Your task to perform on an android device: What is the recent news? Image 0: 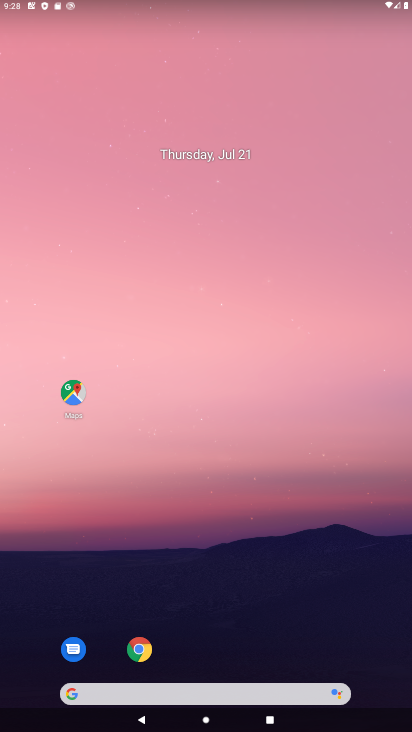
Step 0: drag from (224, 659) to (243, 34)
Your task to perform on an android device: What is the recent news? Image 1: 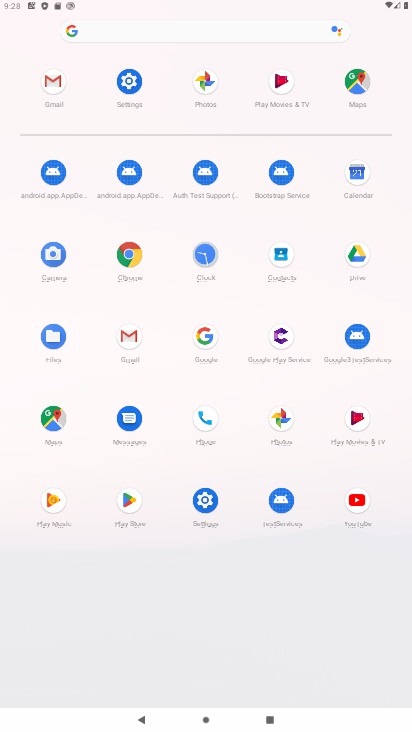
Step 1: click (207, 36)
Your task to perform on an android device: What is the recent news? Image 2: 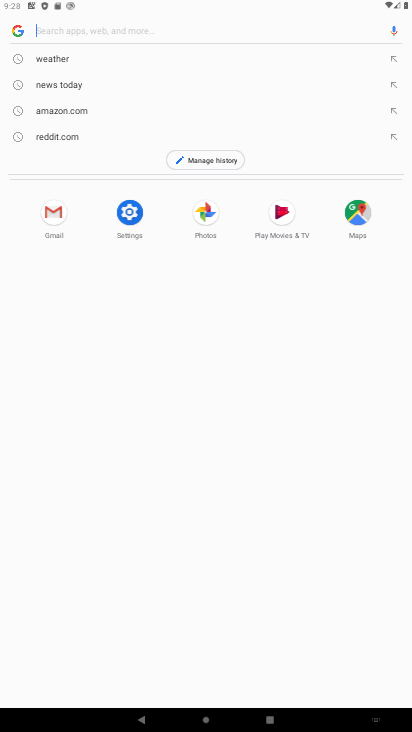
Step 2: type "recent news"
Your task to perform on an android device: What is the recent news? Image 3: 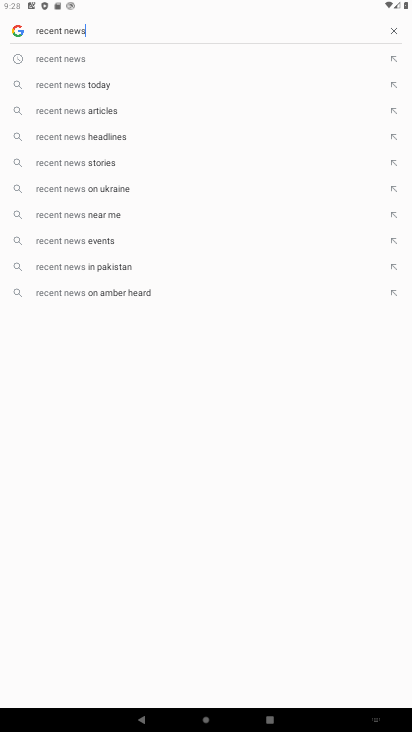
Step 3: click (63, 68)
Your task to perform on an android device: What is the recent news? Image 4: 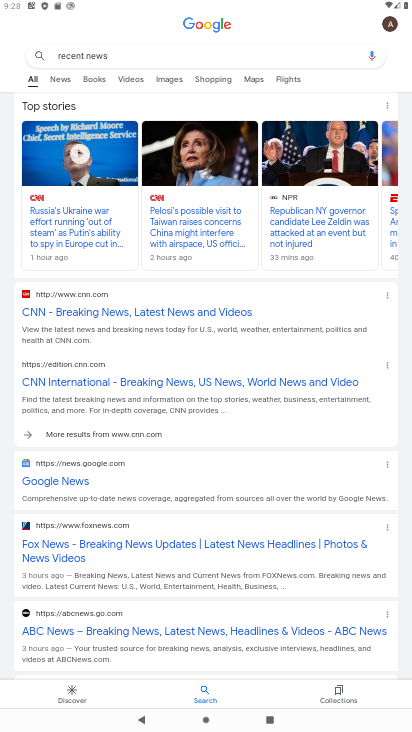
Step 4: task complete